Your task to perform on an android device: clear all cookies in the chrome app Image 0: 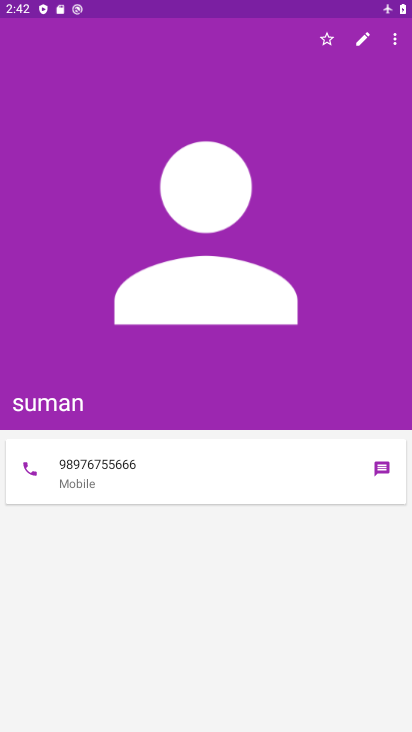
Step 0: press home button
Your task to perform on an android device: clear all cookies in the chrome app Image 1: 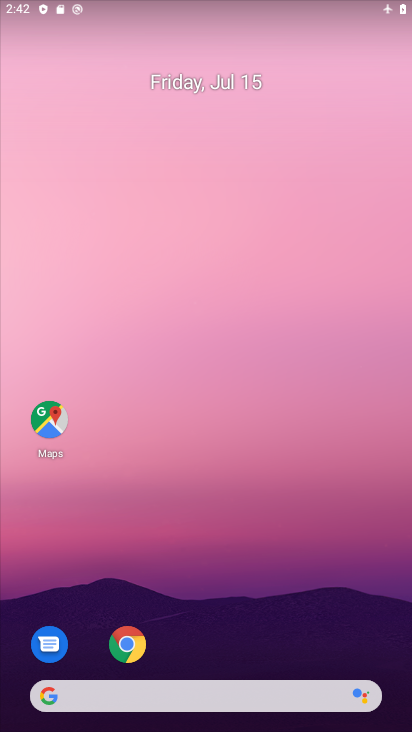
Step 1: drag from (283, 680) to (303, 35)
Your task to perform on an android device: clear all cookies in the chrome app Image 2: 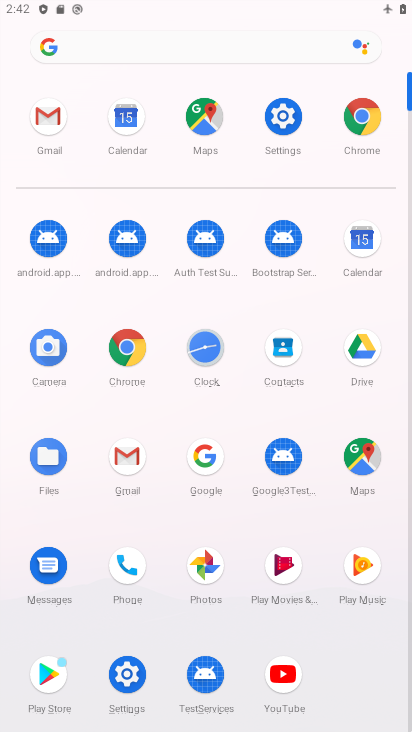
Step 2: click (131, 350)
Your task to perform on an android device: clear all cookies in the chrome app Image 3: 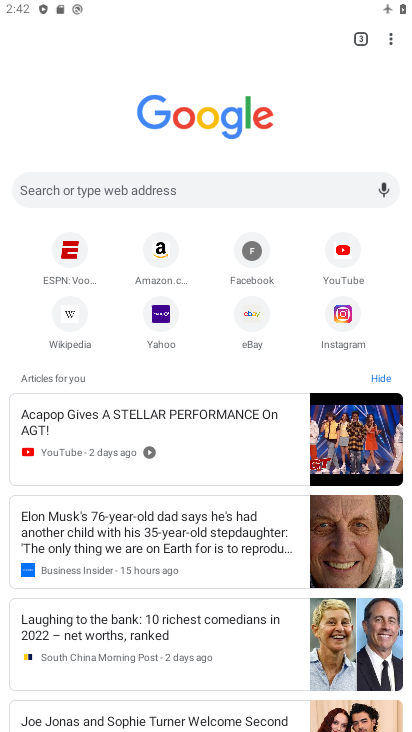
Step 3: drag from (391, 38) to (267, 331)
Your task to perform on an android device: clear all cookies in the chrome app Image 4: 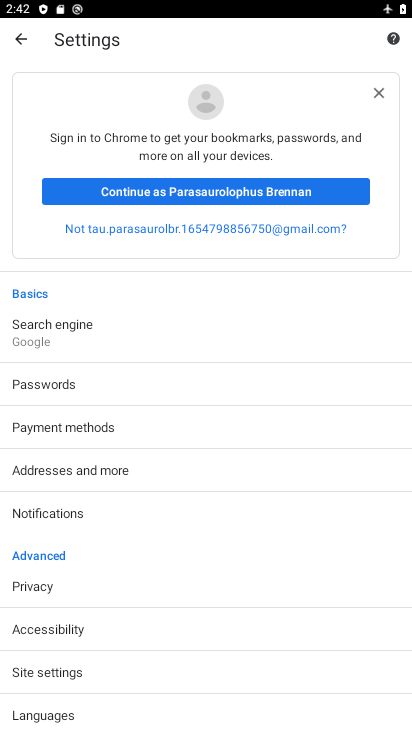
Step 4: drag from (153, 661) to (169, 401)
Your task to perform on an android device: clear all cookies in the chrome app Image 5: 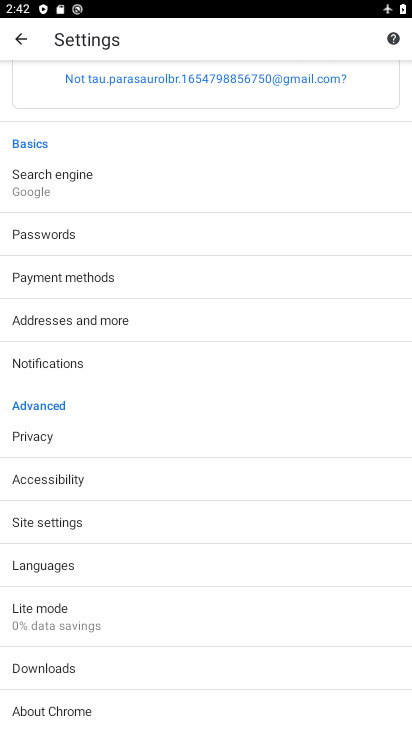
Step 5: click (68, 444)
Your task to perform on an android device: clear all cookies in the chrome app Image 6: 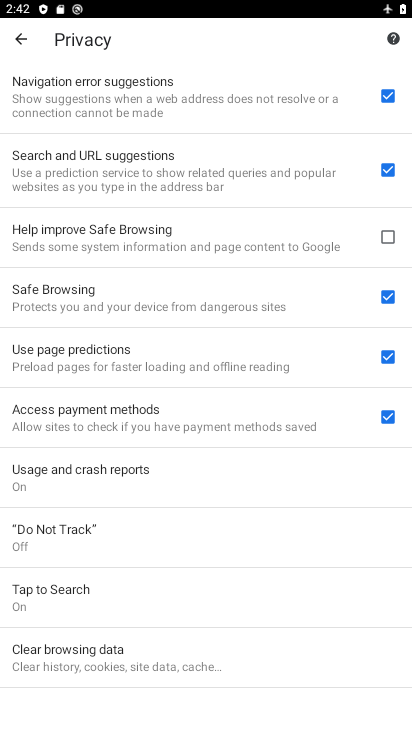
Step 6: drag from (269, 645) to (232, 34)
Your task to perform on an android device: clear all cookies in the chrome app Image 7: 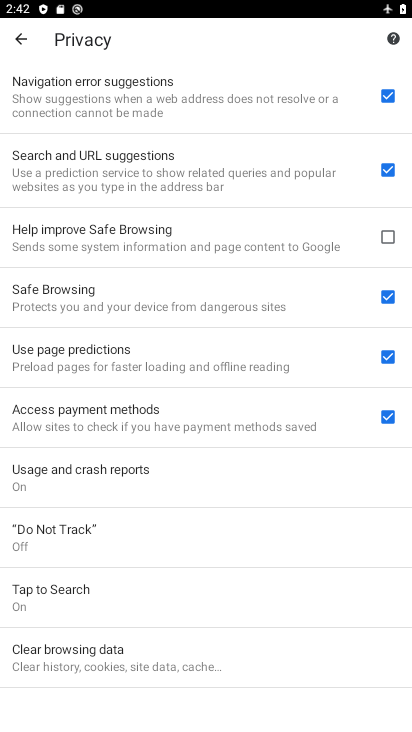
Step 7: click (203, 651)
Your task to perform on an android device: clear all cookies in the chrome app Image 8: 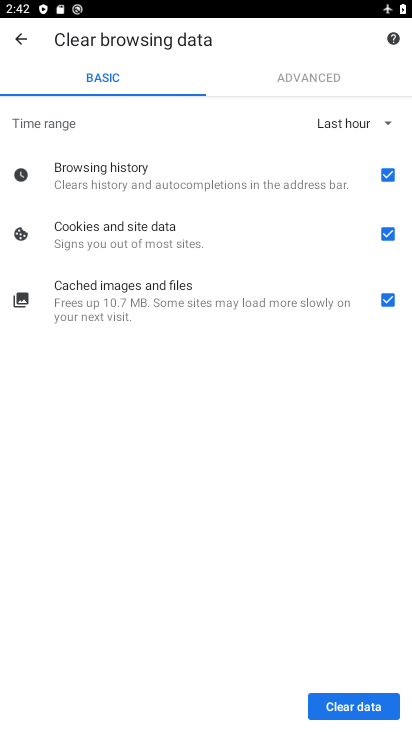
Step 8: click (342, 700)
Your task to perform on an android device: clear all cookies in the chrome app Image 9: 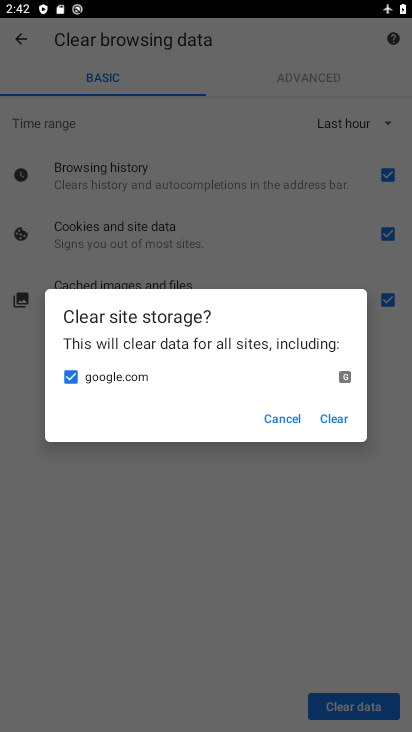
Step 9: click (334, 416)
Your task to perform on an android device: clear all cookies in the chrome app Image 10: 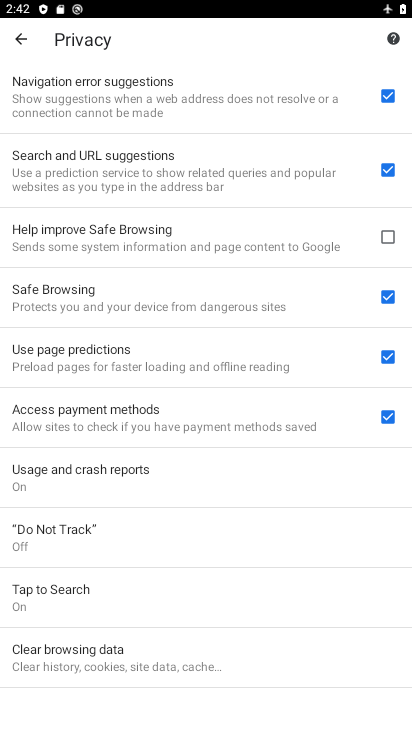
Step 10: task complete